Your task to perform on an android device: turn pop-ups on in chrome Image 0: 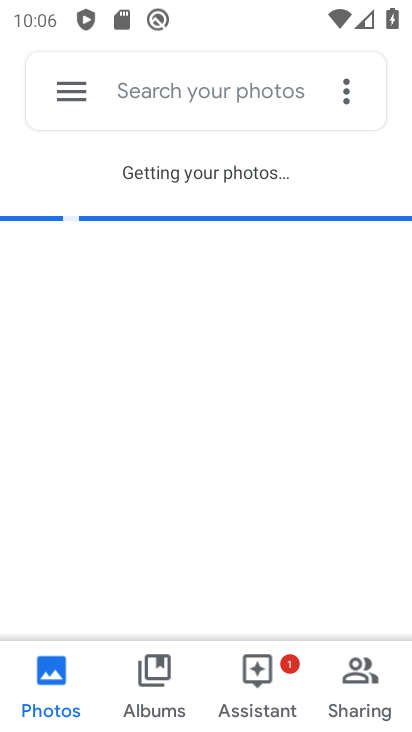
Step 0: press home button
Your task to perform on an android device: turn pop-ups on in chrome Image 1: 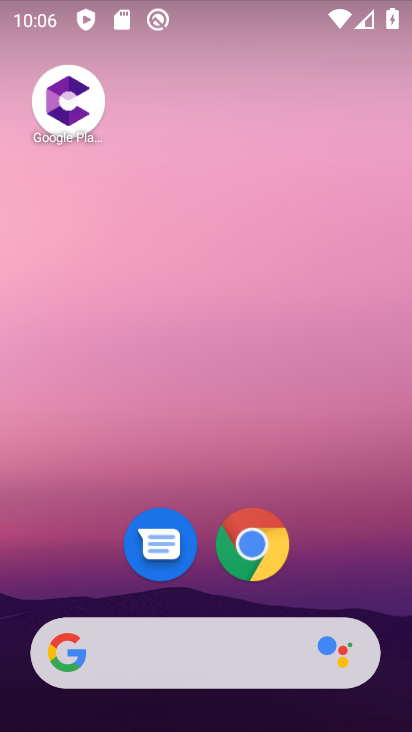
Step 1: click (260, 548)
Your task to perform on an android device: turn pop-ups on in chrome Image 2: 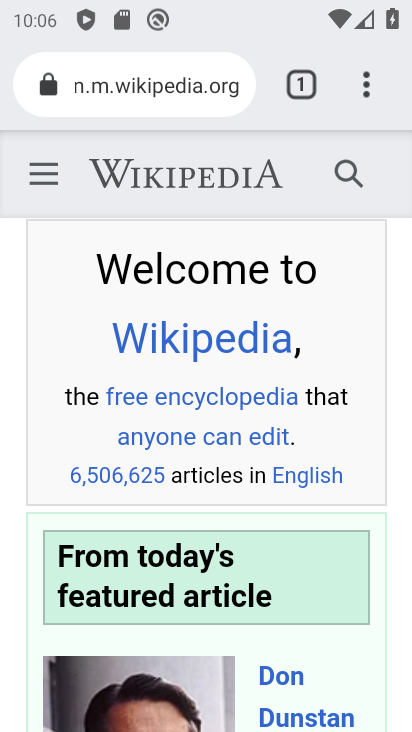
Step 2: drag from (362, 78) to (133, 601)
Your task to perform on an android device: turn pop-ups on in chrome Image 3: 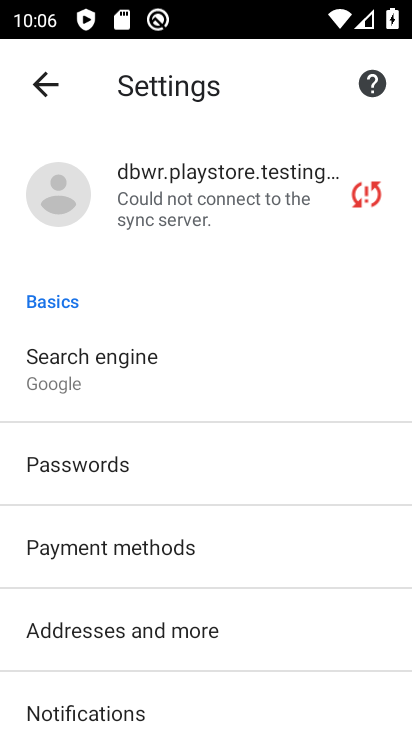
Step 3: drag from (214, 612) to (253, 303)
Your task to perform on an android device: turn pop-ups on in chrome Image 4: 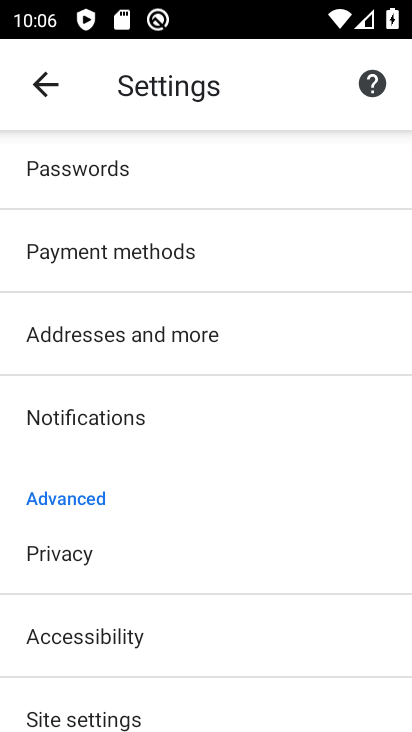
Step 4: drag from (157, 596) to (183, 261)
Your task to perform on an android device: turn pop-ups on in chrome Image 5: 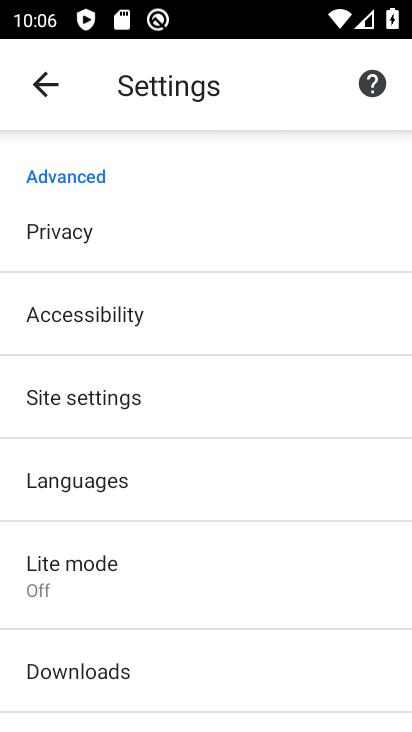
Step 5: click (142, 406)
Your task to perform on an android device: turn pop-ups on in chrome Image 6: 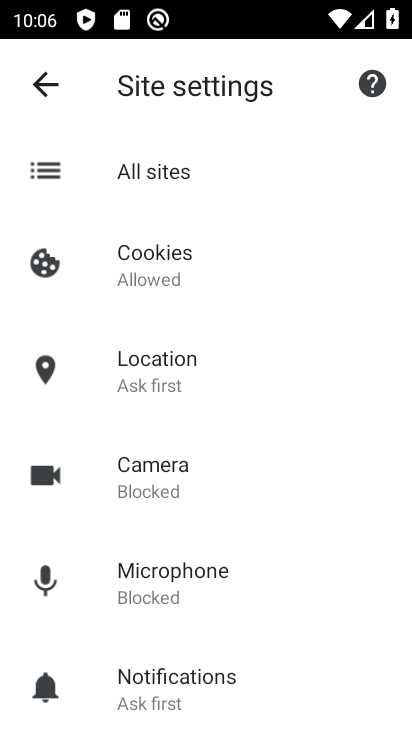
Step 6: drag from (246, 613) to (247, 314)
Your task to perform on an android device: turn pop-ups on in chrome Image 7: 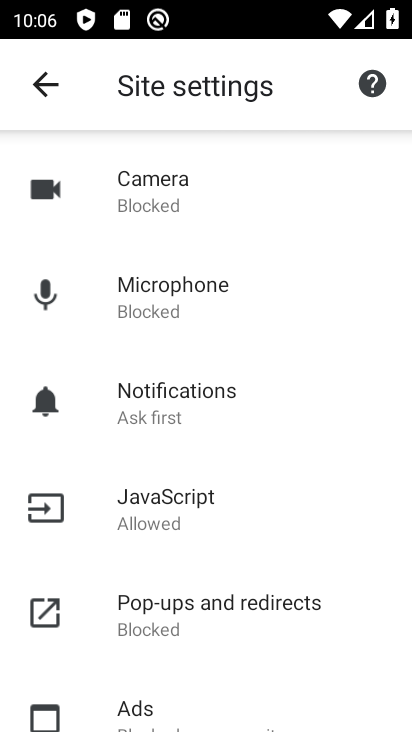
Step 7: click (177, 595)
Your task to perform on an android device: turn pop-ups on in chrome Image 8: 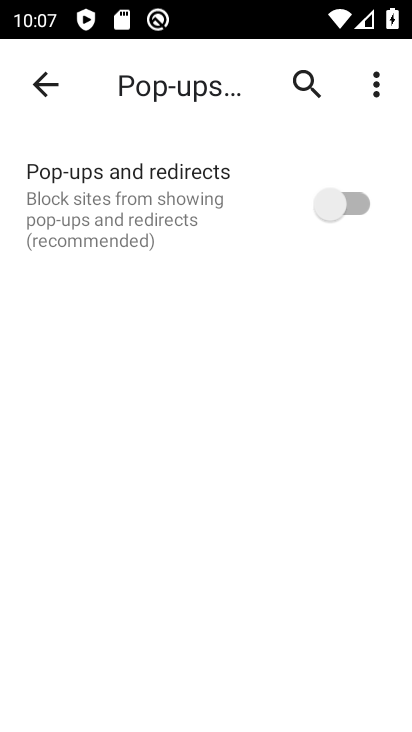
Step 8: click (361, 203)
Your task to perform on an android device: turn pop-ups on in chrome Image 9: 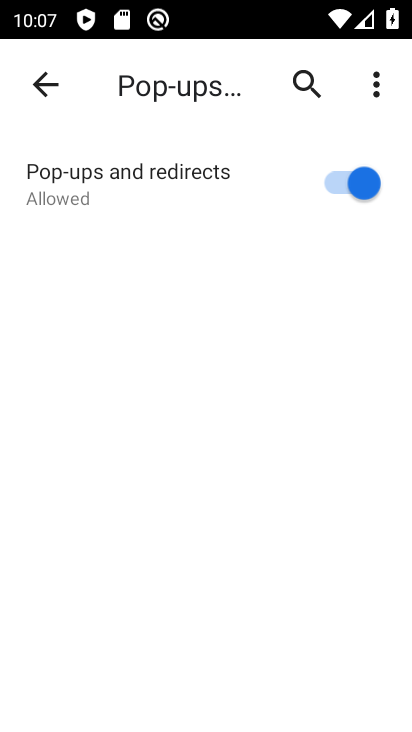
Step 9: task complete